Your task to perform on an android device: turn off location Image 0: 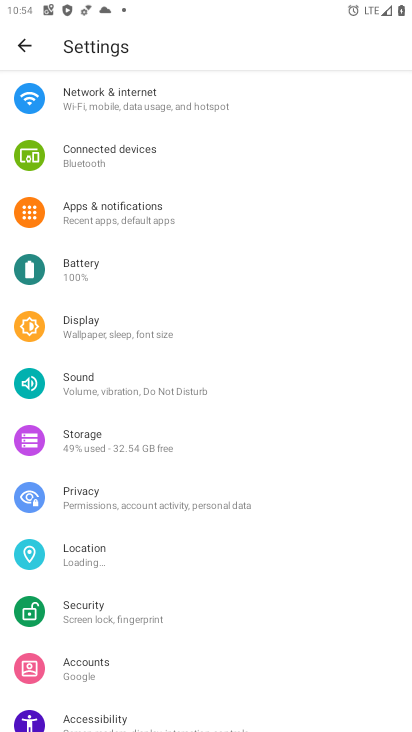
Step 0: press home button
Your task to perform on an android device: turn off location Image 1: 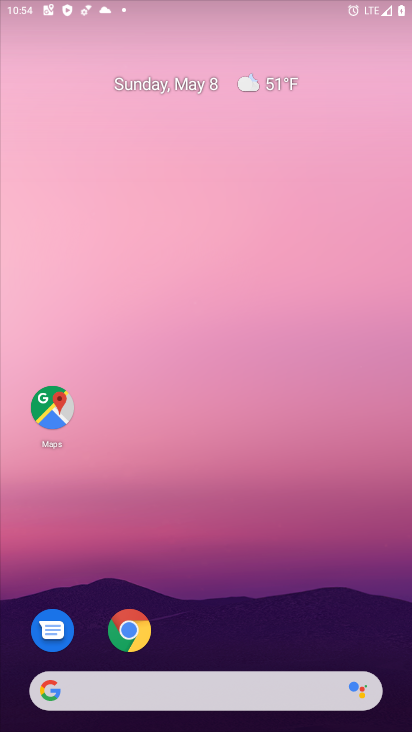
Step 1: drag from (338, 629) to (274, 34)
Your task to perform on an android device: turn off location Image 2: 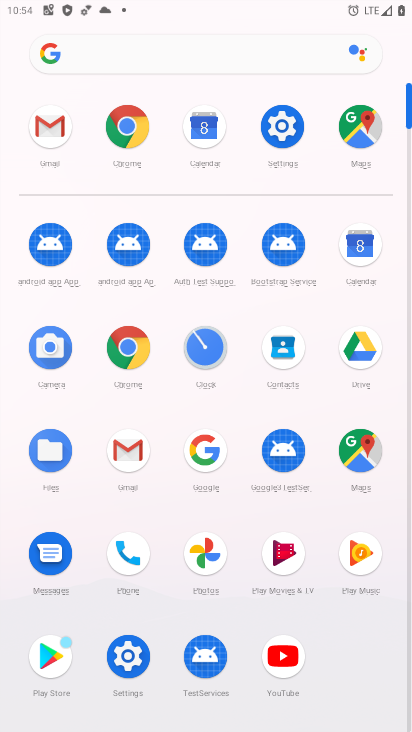
Step 2: click (275, 142)
Your task to perform on an android device: turn off location Image 3: 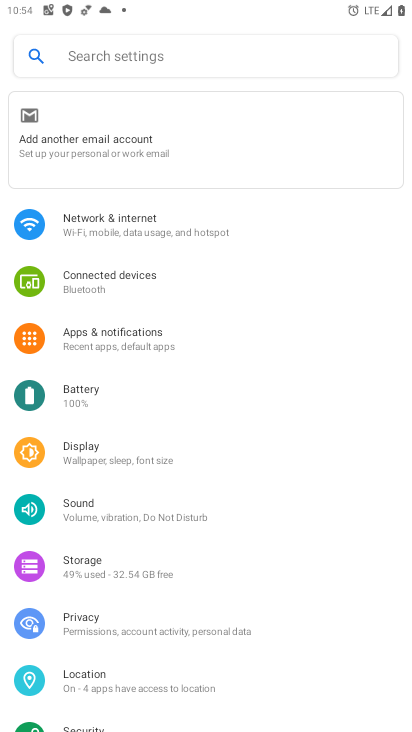
Step 3: click (95, 675)
Your task to perform on an android device: turn off location Image 4: 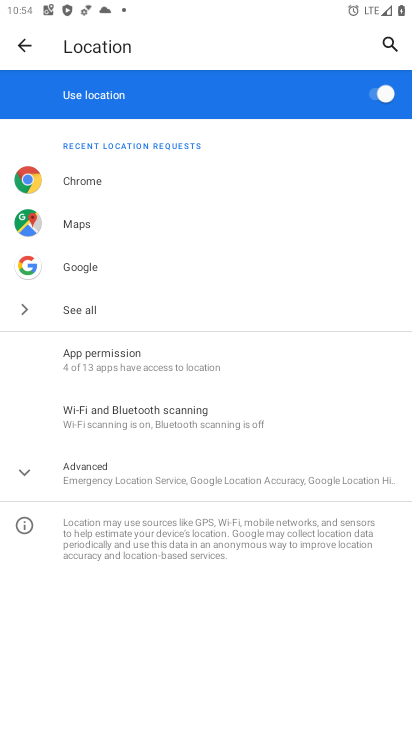
Step 4: click (377, 91)
Your task to perform on an android device: turn off location Image 5: 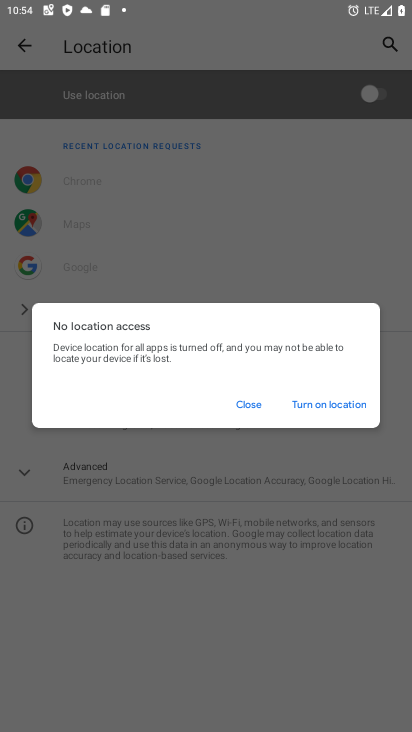
Step 5: task complete